Your task to perform on an android device: When is my next meeting? Image 0: 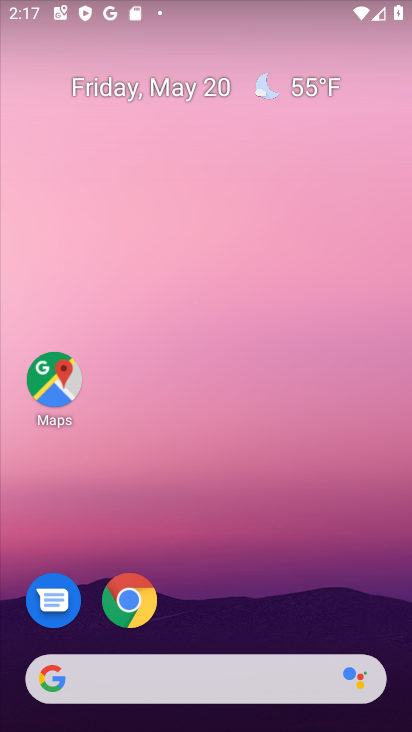
Step 0: drag from (246, 594) to (218, 93)
Your task to perform on an android device: When is my next meeting? Image 1: 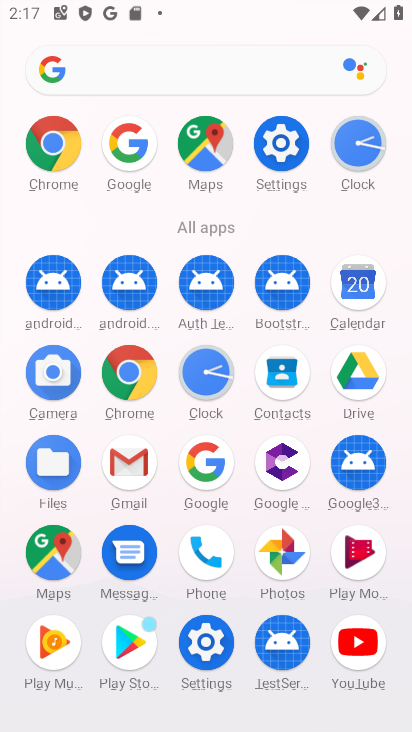
Step 1: click (345, 302)
Your task to perform on an android device: When is my next meeting? Image 2: 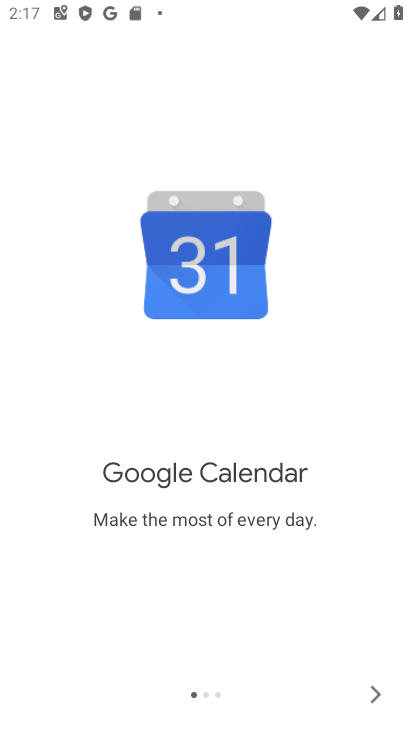
Step 2: click (389, 698)
Your task to perform on an android device: When is my next meeting? Image 3: 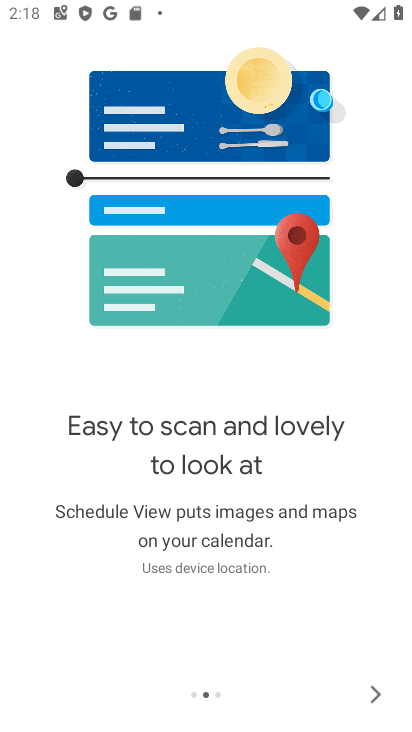
Step 3: click (376, 697)
Your task to perform on an android device: When is my next meeting? Image 4: 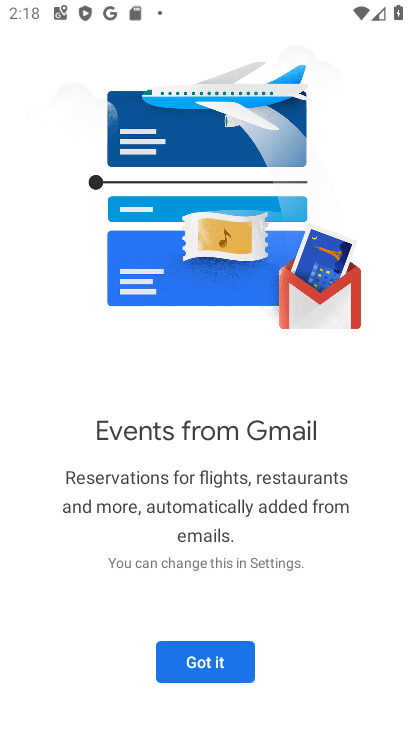
Step 4: click (219, 667)
Your task to perform on an android device: When is my next meeting? Image 5: 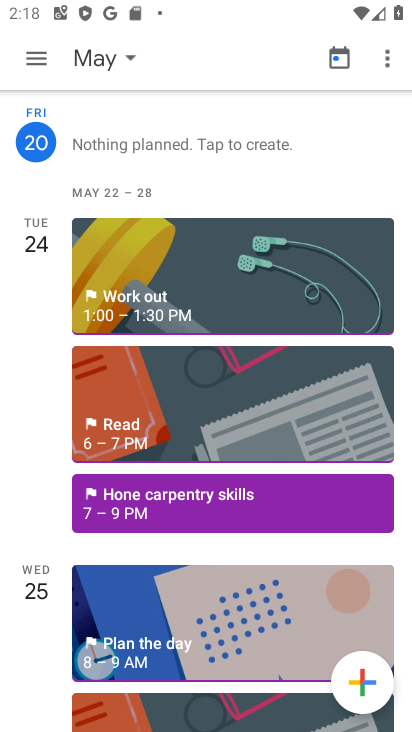
Step 5: click (32, 52)
Your task to perform on an android device: When is my next meeting? Image 6: 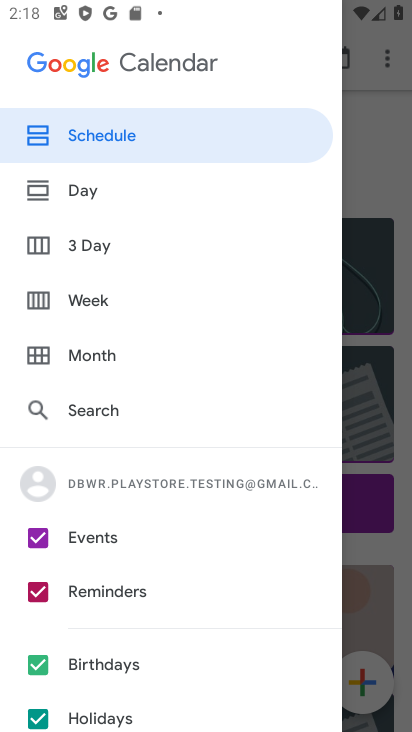
Step 6: click (35, 724)
Your task to perform on an android device: When is my next meeting? Image 7: 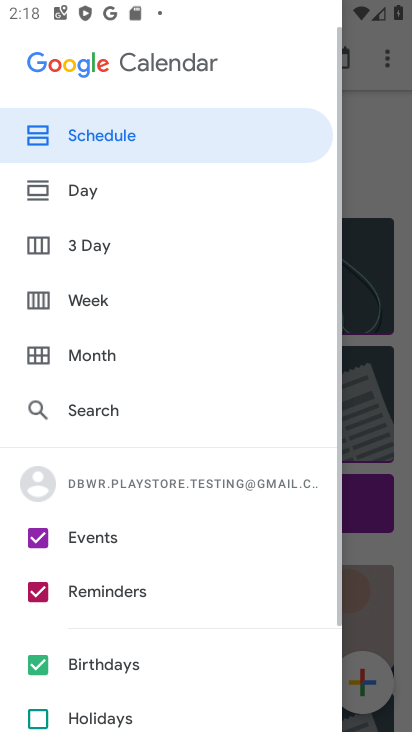
Step 7: click (38, 671)
Your task to perform on an android device: When is my next meeting? Image 8: 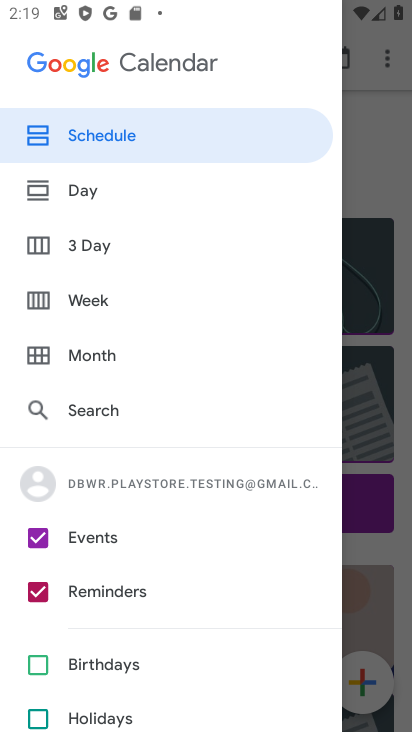
Step 8: click (373, 477)
Your task to perform on an android device: When is my next meeting? Image 9: 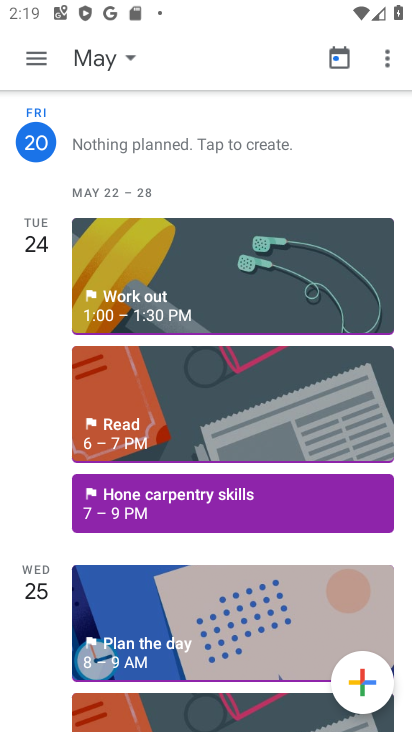
Step 9: task complete